Your task to perform on an android device: Open Wikipedia Image 0: 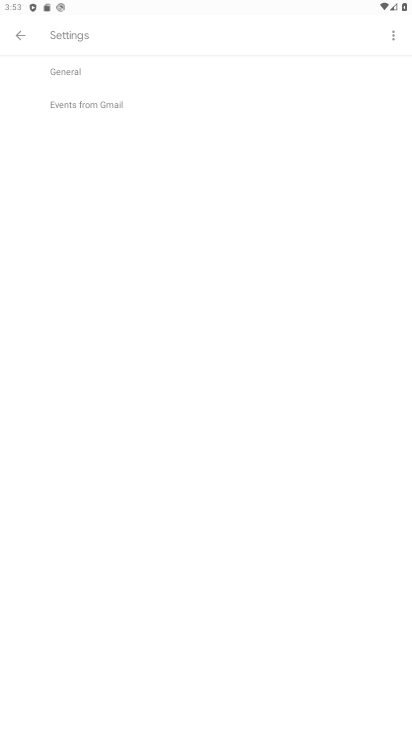
Step 0: drag from (185, 676) to (281, 76)
Your task to perform on an android device: Open Wikipedia Image 1: 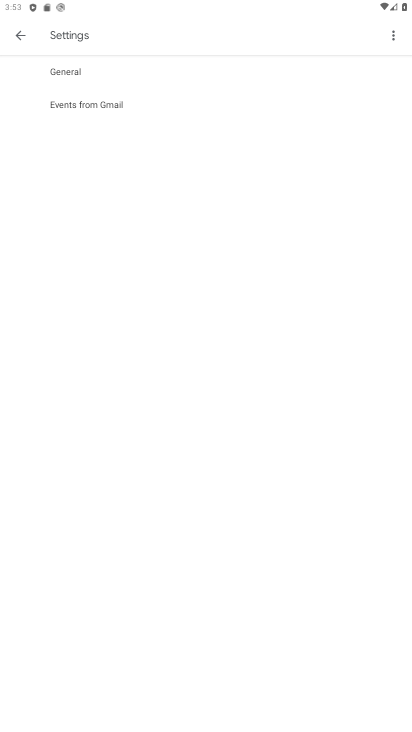
Step 1: press home button
Your task to perform on an android device: Open Wikipedia Image 2: 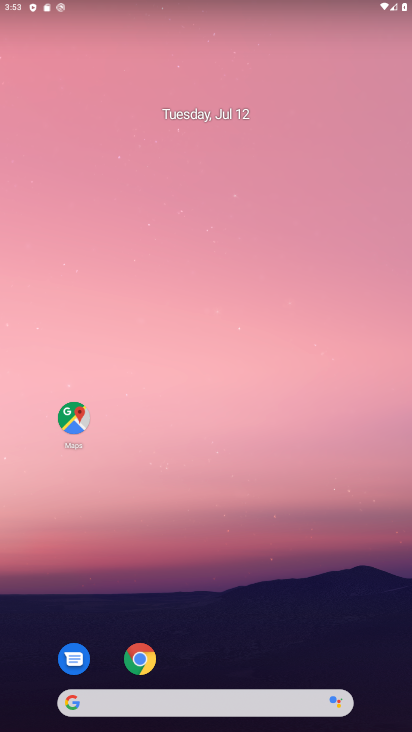
Step 2: drag from (214, 675) to (295, 135)
Your task to perform on an android device: Open Wikipedia Image 3: 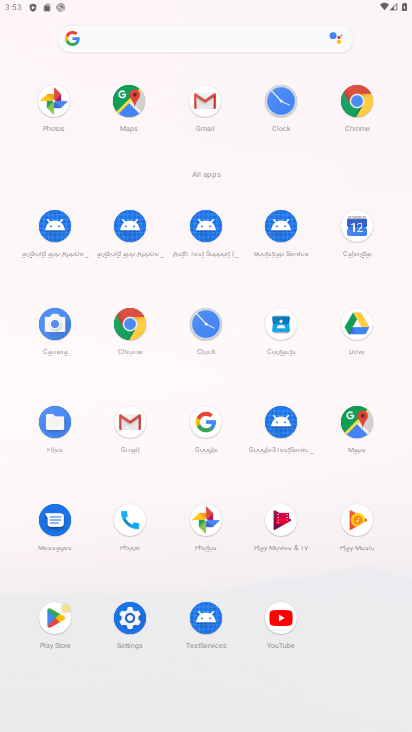
Step 3: click (131, 325)
Your task to perform on an android device: Open Wikipedia Image 4: 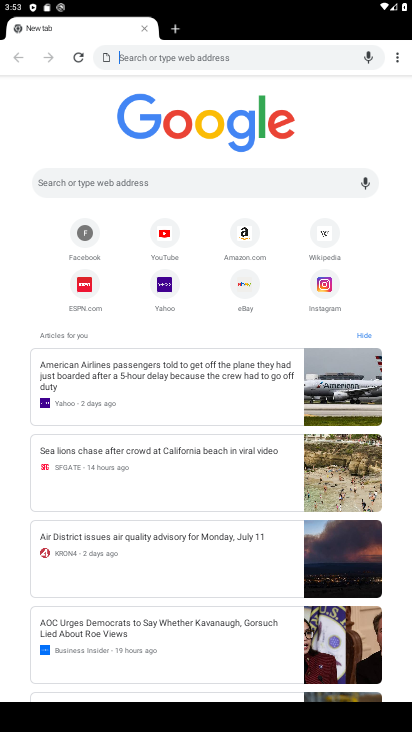
Step 4: click (325, 232)
Your task to perform on an android device: Open Wikipedia Image 5: 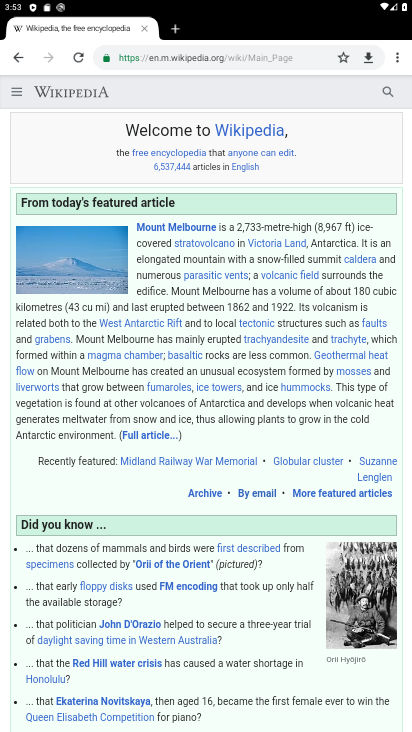
Step 5: task complete